Your task to perform on an android device: toggle sleep mode Image 0: 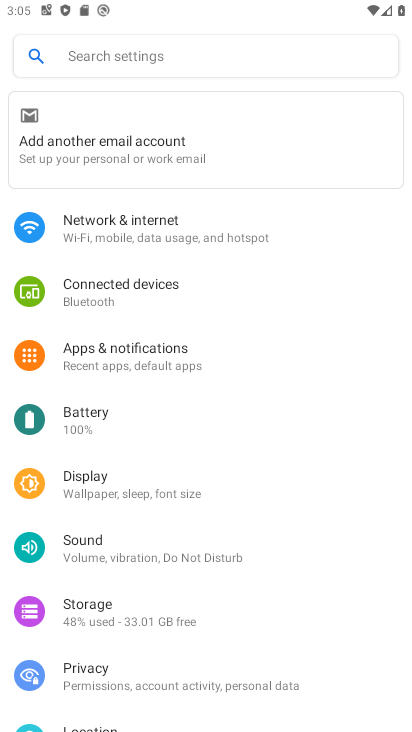
Step 0: click (186, 493)
Your task to perform on an android device: toggle sleep mode Image 1: 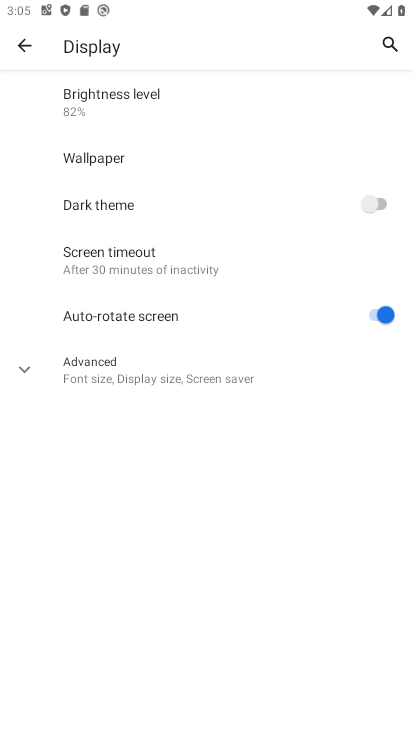
Step 1: press back button
Your task to perform on an android device: toggle sleep mode Image 2: 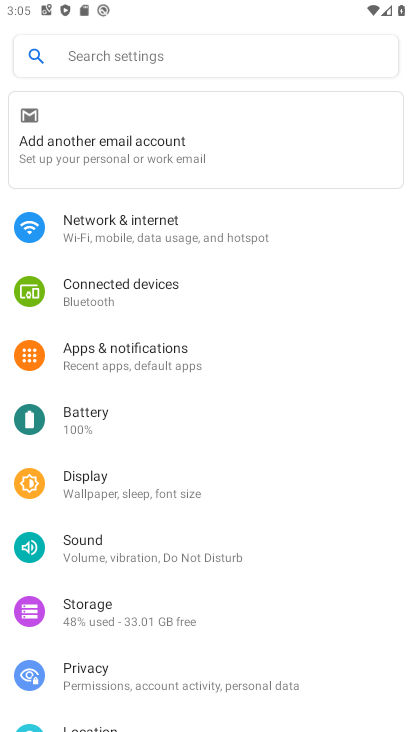
Step 2: click (193, 493)
Your task to perform on an android device: toggle sleep mode Image 3: 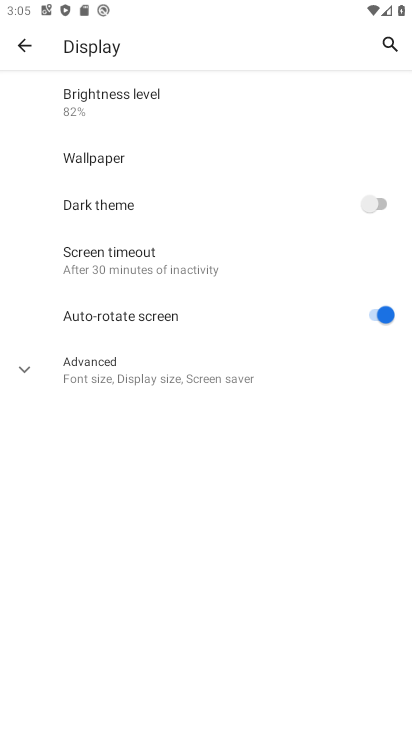
Step 3: task complete